Your task to perform on an android device: clear history in the chrome app Image 0: 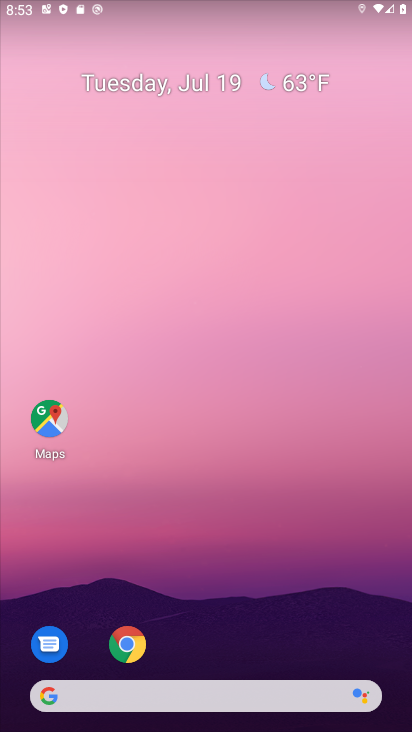
Step 0: drag from (244, 636) to (232, 157)
Your task to perform on an android device: clear history in the chrome app Image 1: 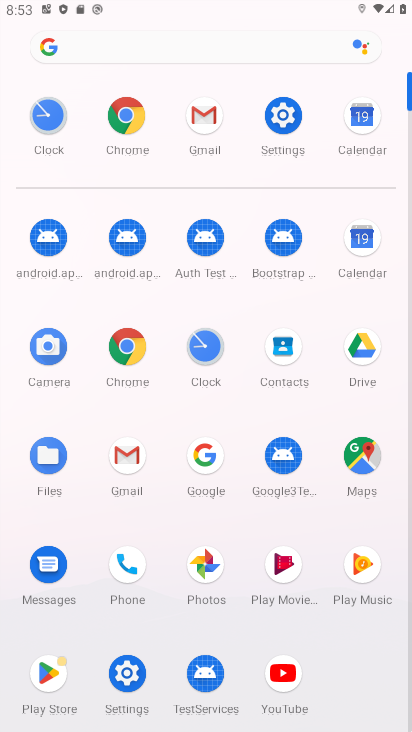
Step 1: click (118, 118)
Your task to perform on an android device: clear history in the chrome app Image 2: 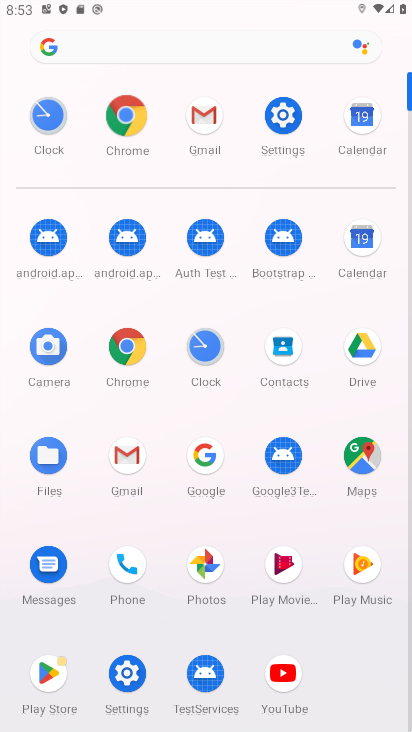
Step 2: click (118, 118)
Your task to perform on an android device: clear history in the chrome app Image 3: 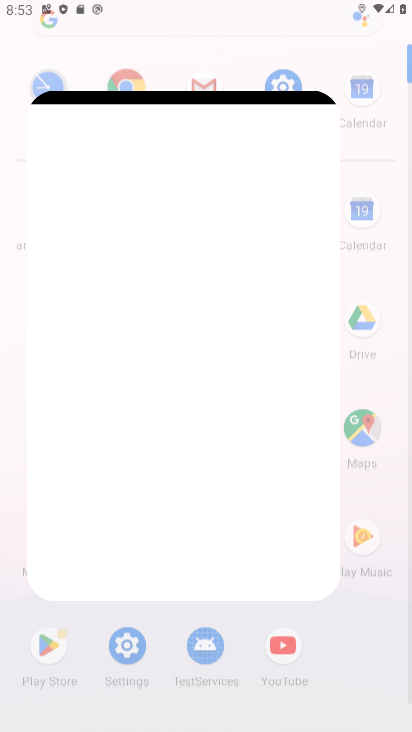
Step 3: click (119, 118)
Your task to perform on an android device: clear history in the chrome app Image 4: 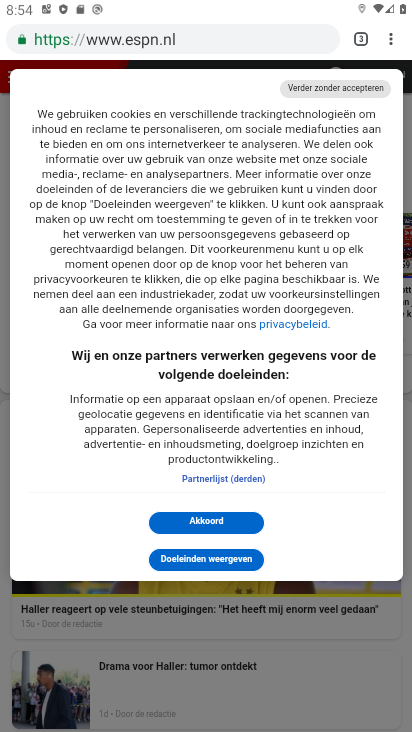
Step 4: drag from (387, 45) to (268, 219)
Your task to perform on an android device: clear history in the chrome app Image 5: 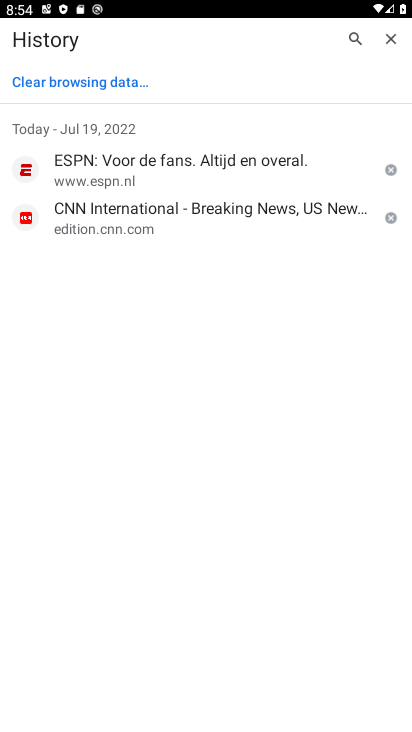
Step 5: click (112, 79)
Your task to perform on an android device: clear history in the chrome app Image 6: 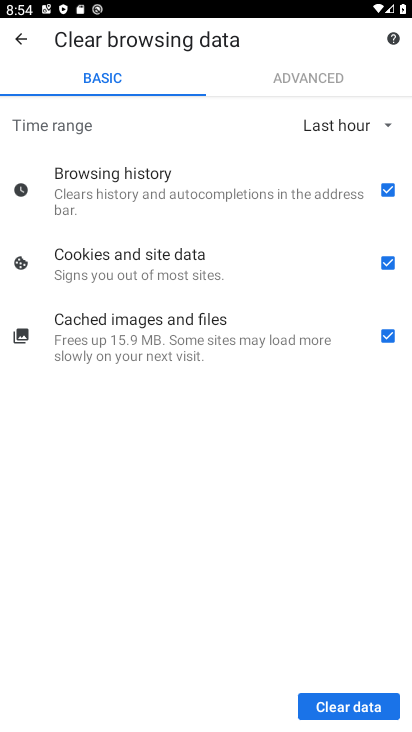
Step 6: drag from (354, 698) to (387, 687)
Your task to perform on an android device: clear history in the chrome app Image 7: 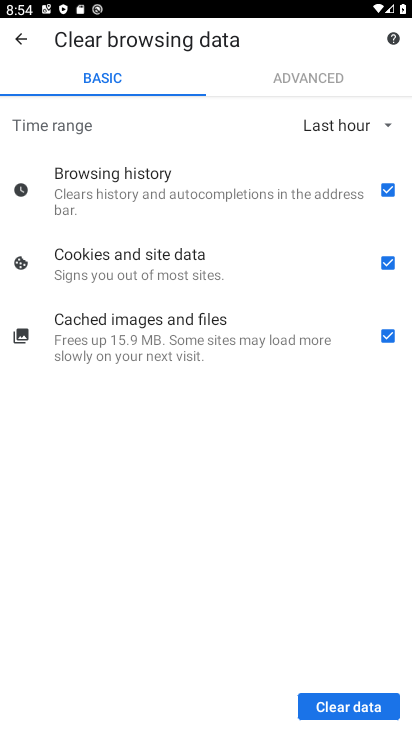
Step 7: click (367, 716)
Your task to perform on an android device: clear history in the chrome app Image 8: 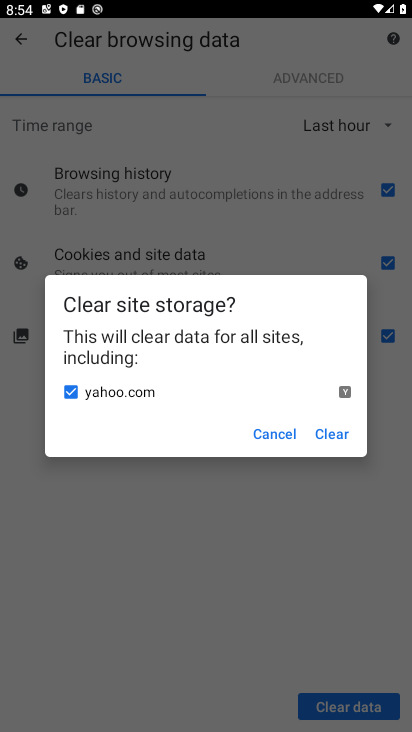
Step 8: click (333, 444)
Your task to perform on an android device: clear history in the chrome app Image 9: 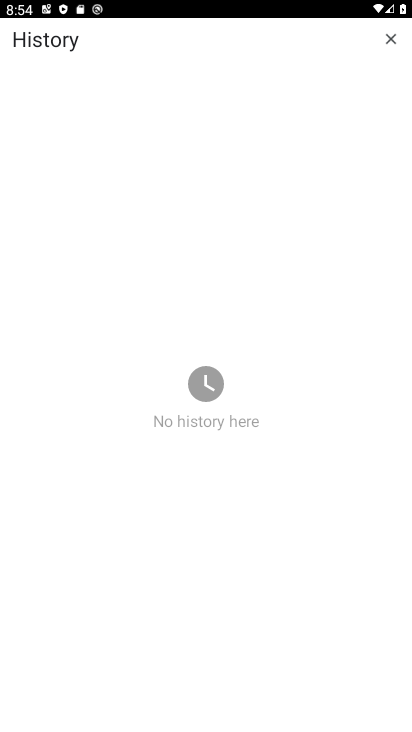
Step 9: task complete